Your task to perform on an android device: delete the emails in spam in the gmail app Image 0: 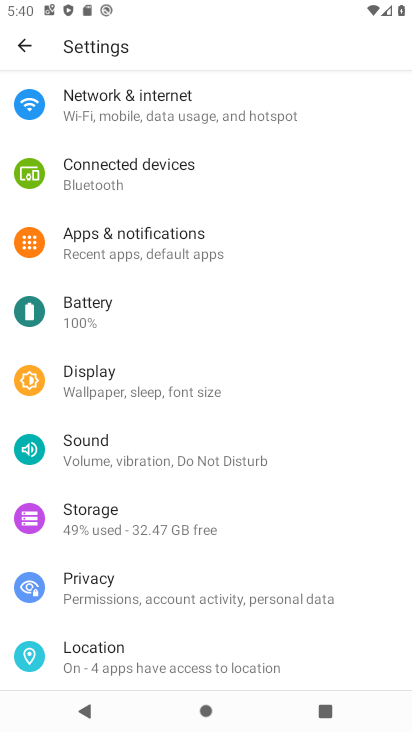
Step 0: press home button
Your task to perform on an android device: delete the emails in spam in the gmail app Image 1: 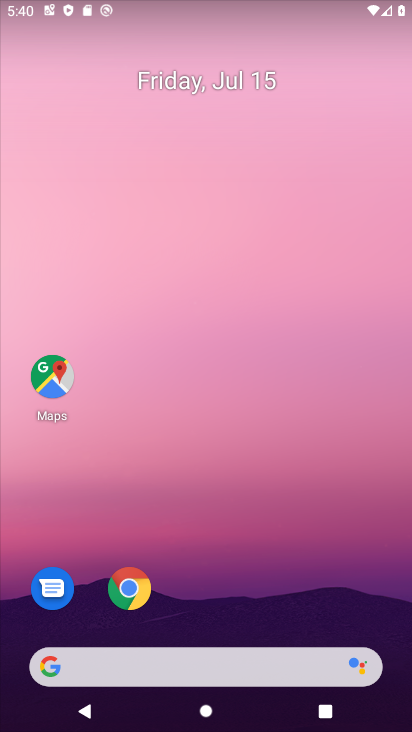
Step 1: drag from (172, 656) to (283, 2)
Your task to perform on an android device: delete the emails in spam in the gmail app Image 2: 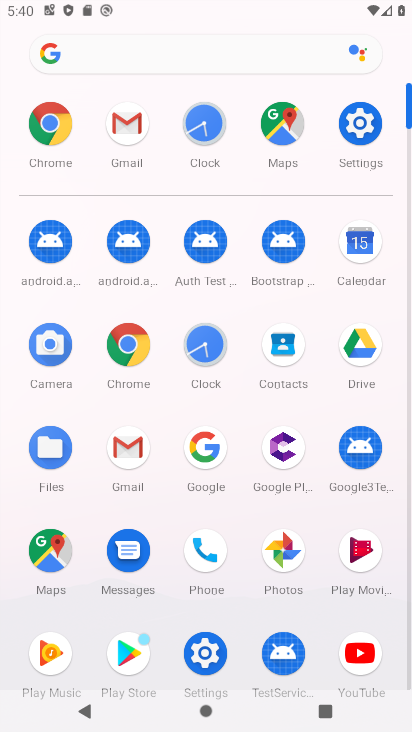
Step 2: click (133, 439)
Your task to perform on an android device: delete the emails in spam in the gmail app Image 3: 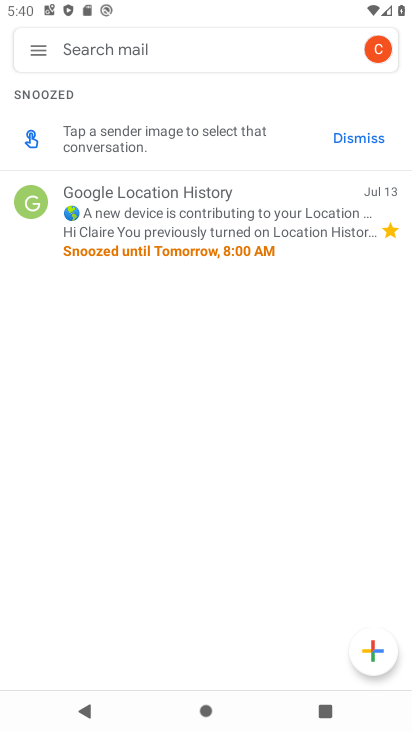
Step 3: click (47, 54)
Your task to perform on an android device: delete the emails in spam in the gmail app Image 4: 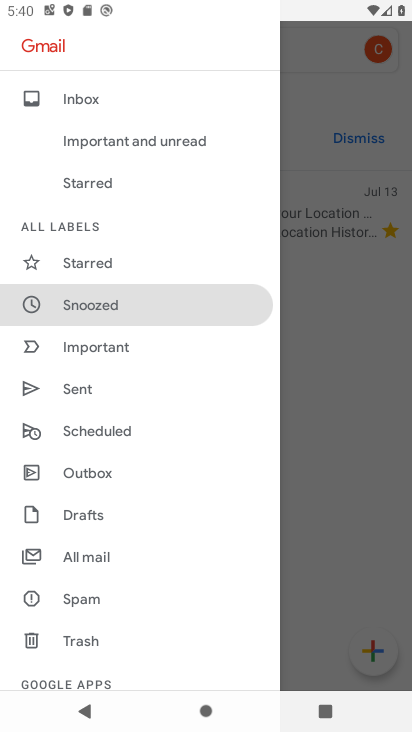
Step 4: click (106, 599)
Your task to perform on an android device: delete the emails in spam in the gmail app Image 5: 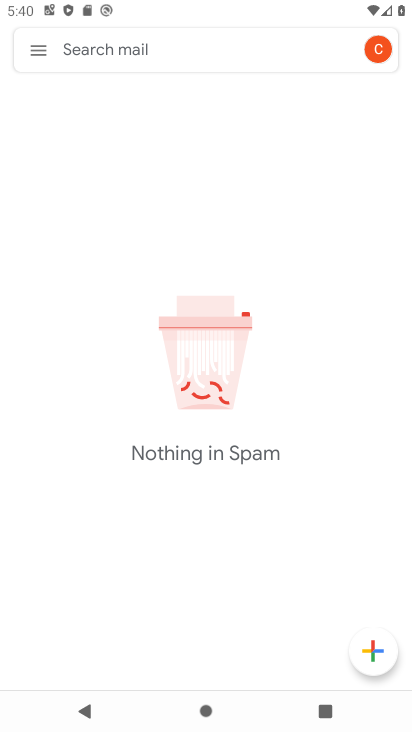
Step 5: task complete